Your task to perform on an android device: What's the weather today? Image 0: 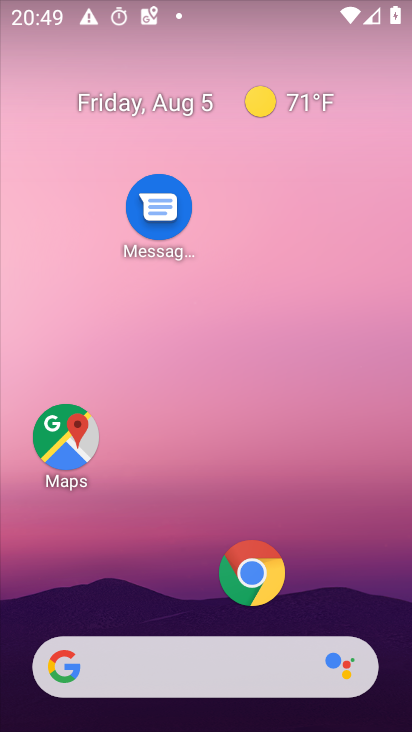
Step 0: press home button
Your task to perform on an android device: What's the weather today? Image 1: 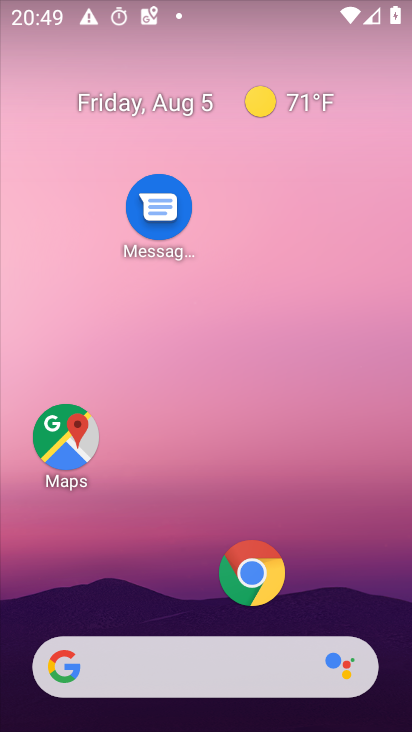
Step 1: drag from (197, 613) to (259, 99)
Your task to perform on an android device: What's the weather today? Image 2: 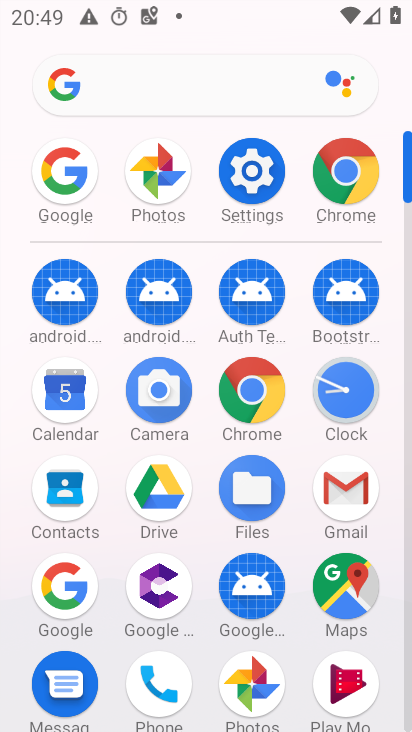
Step 2: press home button
Your task to perform on an android device: What's the weather today? Image 3: 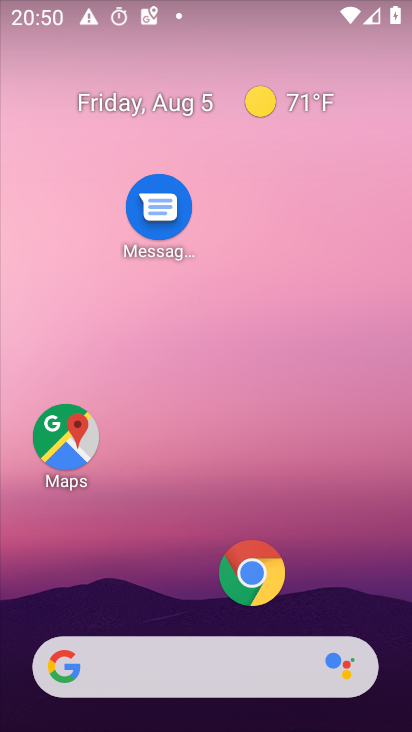
Step 3: click (131, 669)
Your task to perform on an android device: What's the weather today? Image 4: 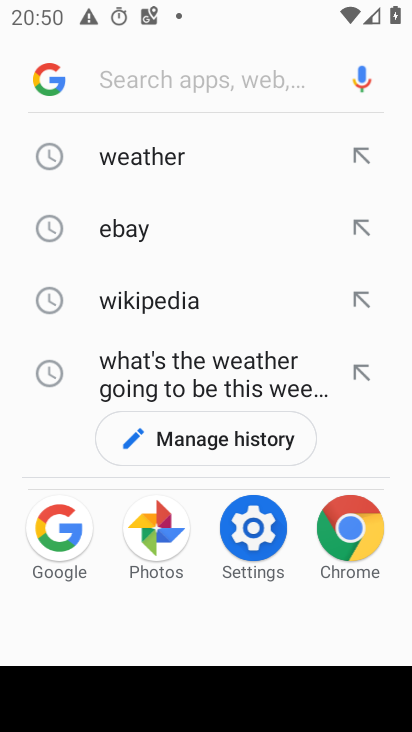
Step 4: click (140, 151)
Your task to perform on an android device: What's the weather today? Image 5: 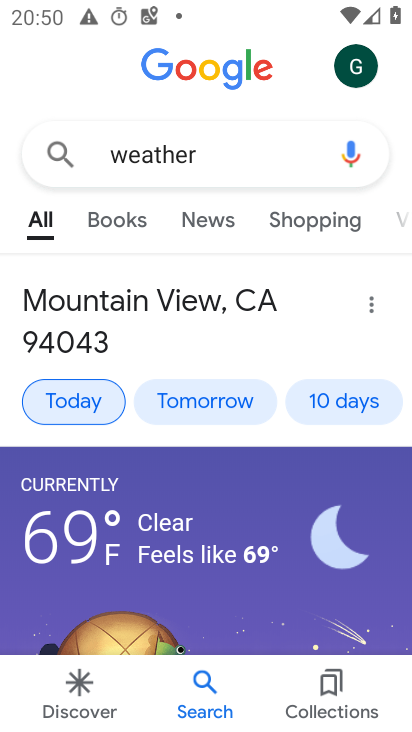
Step 5: task complete